Your task to perform on an android device: toggle sleep mode Image 0: 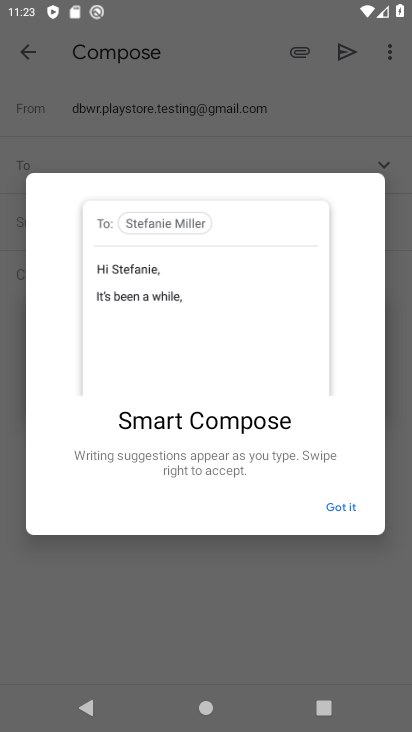
Step 0: press home button
Your task to perform on an android device: toggle sleep mode Image 1: 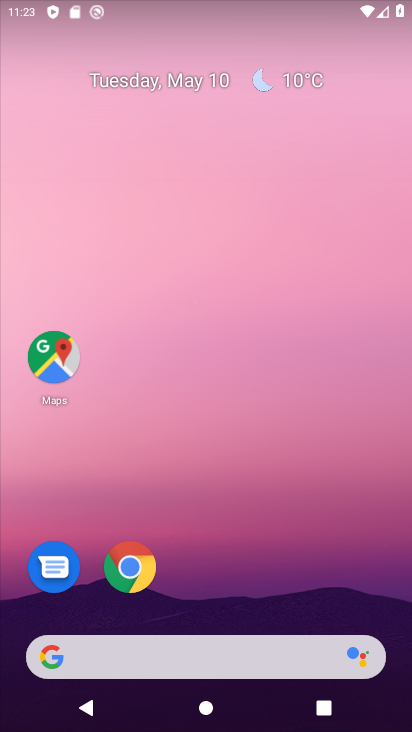
Step 1: drag from (243, 635) to (307, 0)
Your task to perform on an android device: toggle sleep mode Image 2: 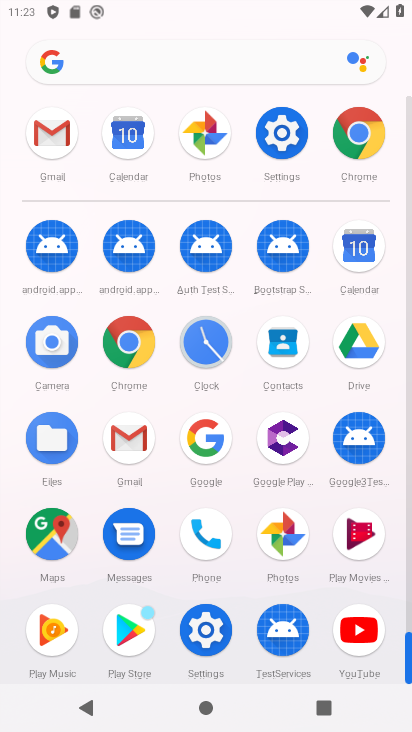
Step 2: click (271, 151)
Your task to perform on an android device: toggle sleep mode Image 3: 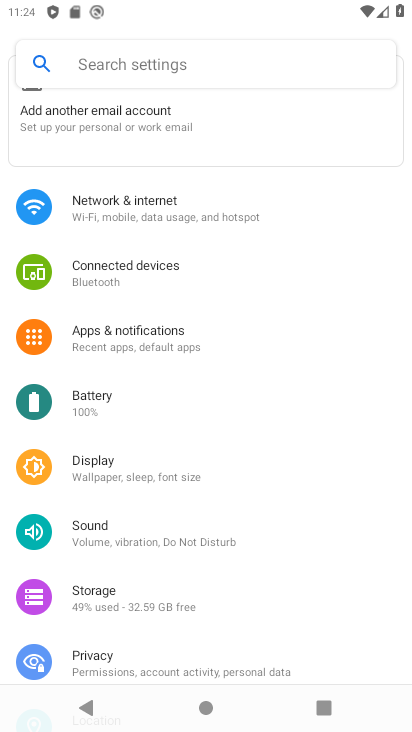
Step 3: task complete